Your task to perform on an android device: star an email in the gmail app Image 0: 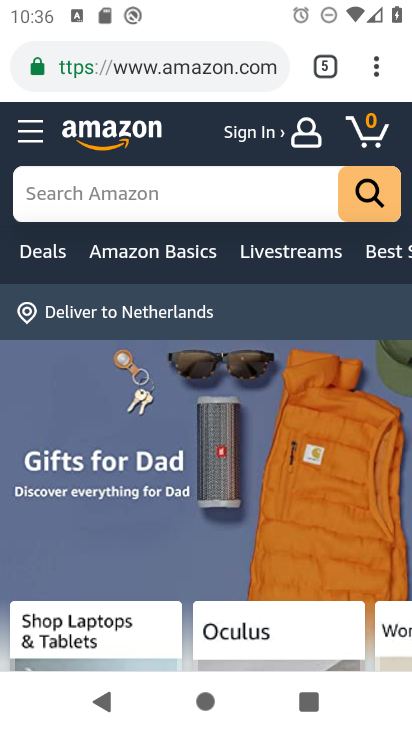
Step 0: press home button
Your task to perform on an android device: star an email in the gmail app Image 1: 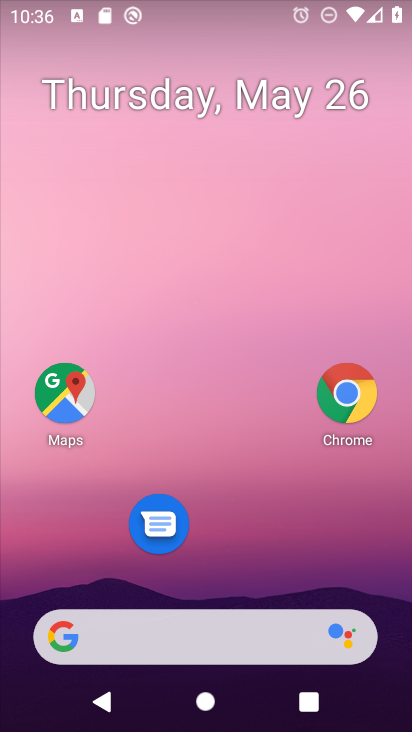
Step 1: drag from (221, 474) to (246, 37)
Your task to perform on an android device: star an email in the gmail app Image 2: 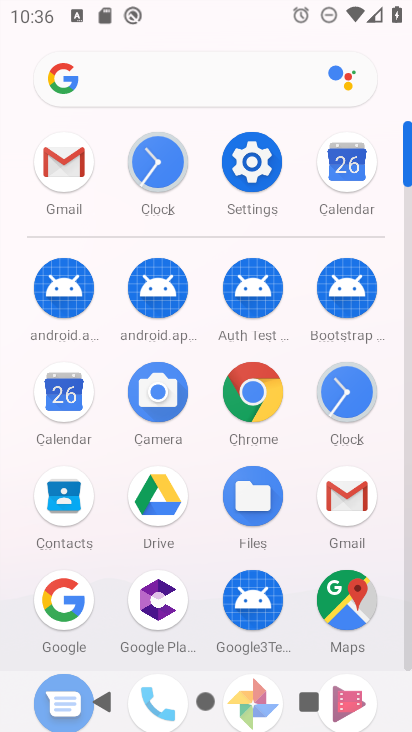
Step 2: click (75, 159)
Your task to perform on an android device: star an email in the gmail app Image 3: 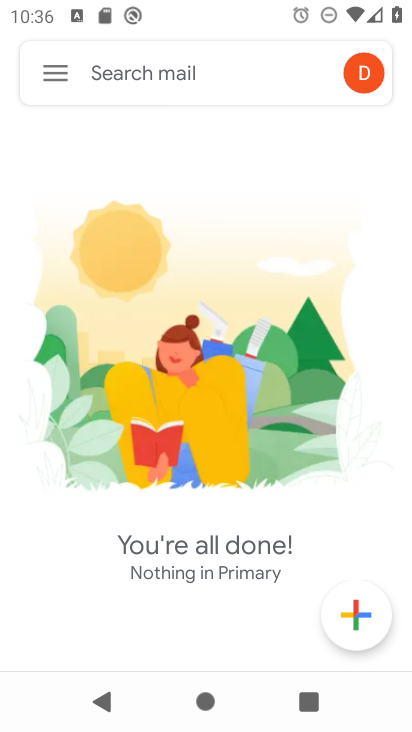
Step 3: click (50, 70)
Your task to perform on an android device: star an email in the gmail app Image 4: 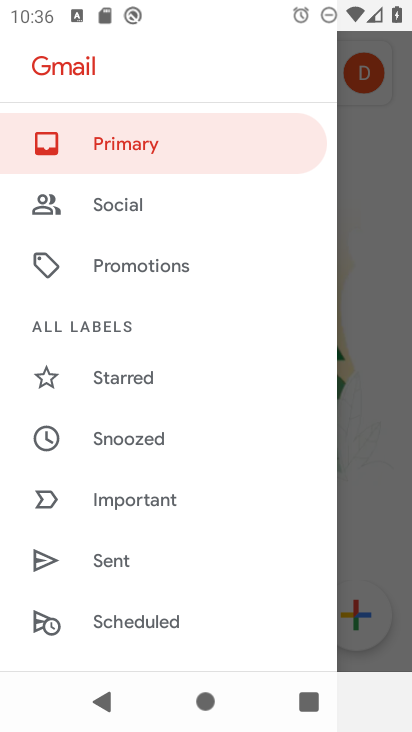
Step 4: drag from (163, 536) to (241, 181)
Your task to perform on an android device: star an email in the gmail app Image 5: 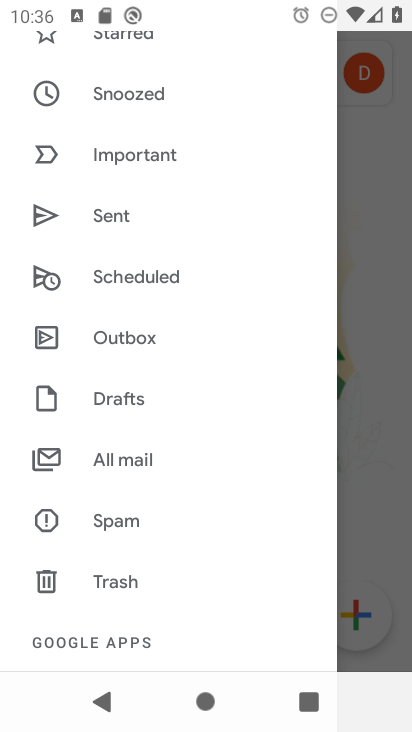
Step 5: click (125, 455)
Your task to perform on an android device: star an email in the gmail app Image 6: 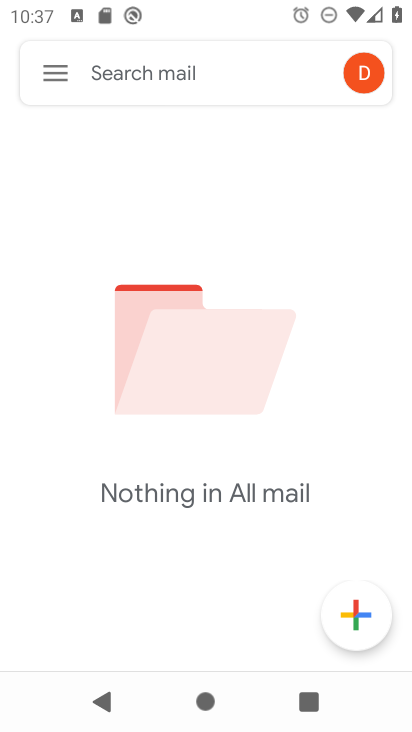
Step 6: task complete